Your task to perform on an android device: empty trash in the gmail app Image 0: 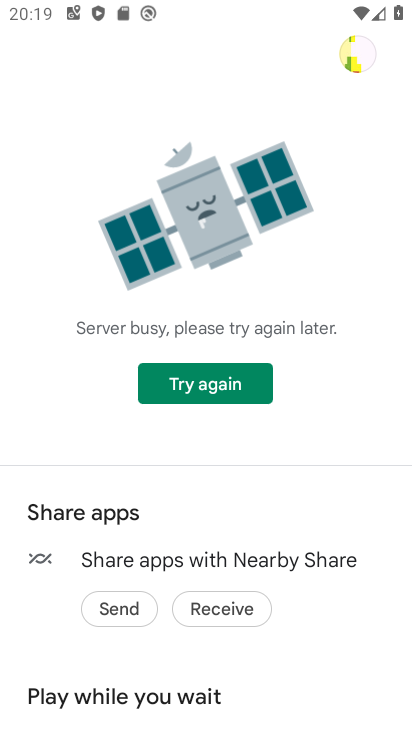
Step 0: press home button
Your task to perform on an android device: empty trash in the gmail app Image 1: 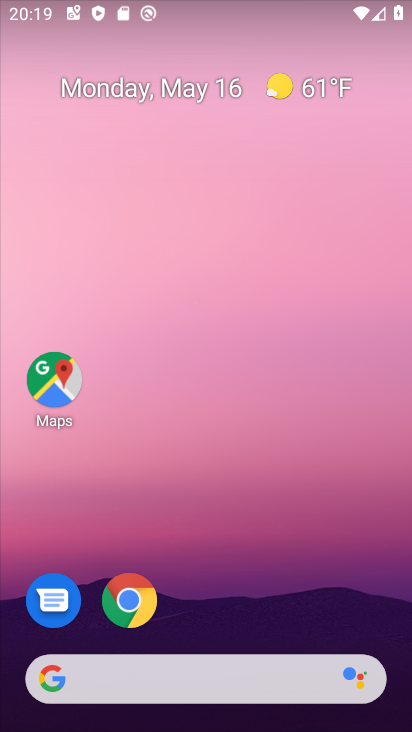
Step 1: drag from (165, 648) to (272, 193)
Your task to perform on an android device: empty trash in the gmail app Image 2: 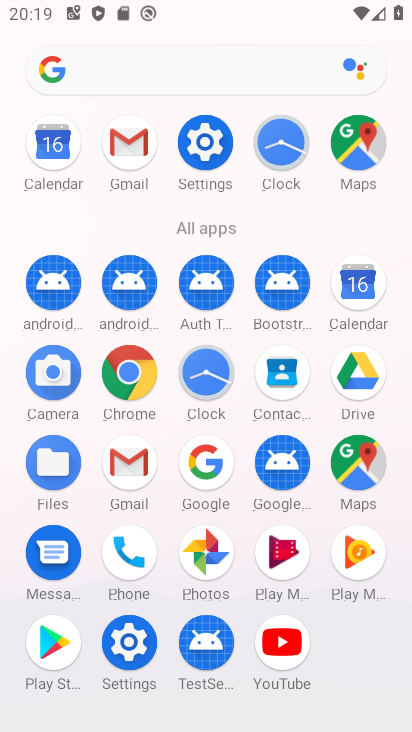
Step 2: click (146, 461)
Your task to perform on an android device: empty trash in the gmail app Image 3: 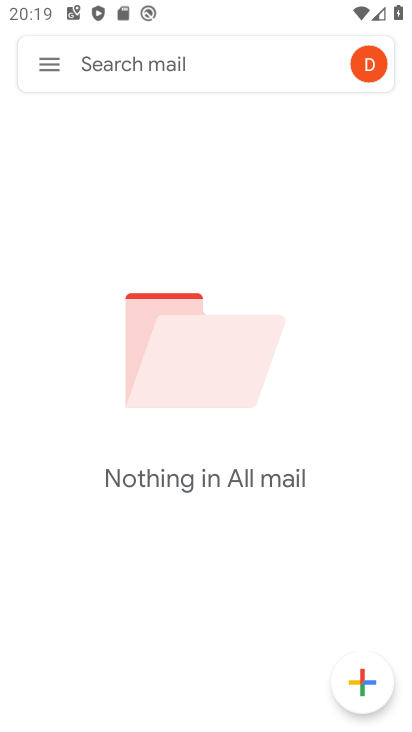
Step 3: click (74, 68)
Your task to perform on an android device: empty trash in the gmail app Image 4: 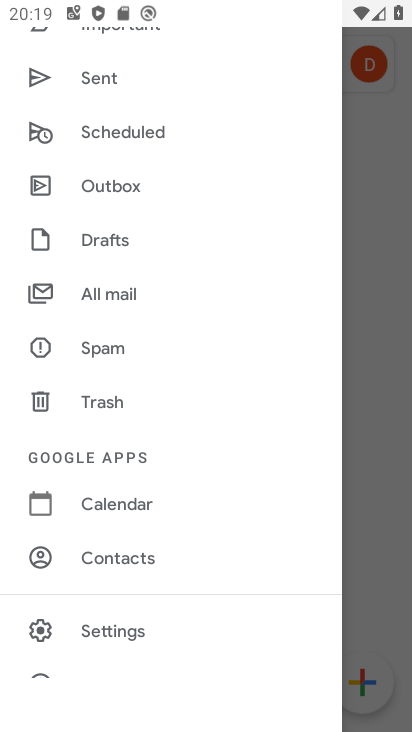
Step 4: click (108, 406)
Your task to perform on an android device: empty trash in the gmail app Image 5: 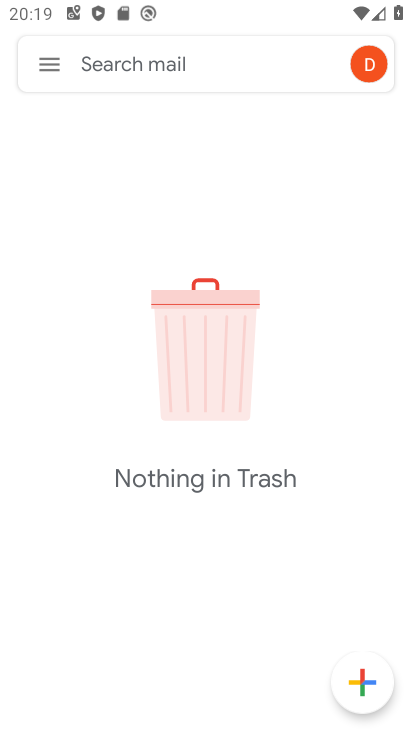
Step 5: task complete